Your task to perform on an android device: Open Google Image 0: 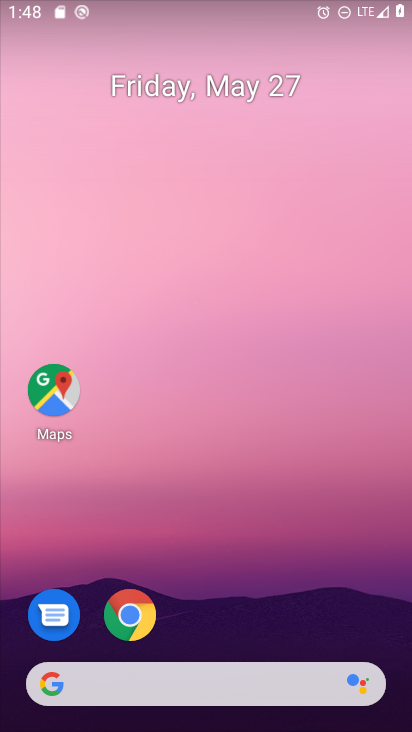
Step 0: drag from (204, 691) to (250, 23)
Your task to perform on an android device: Open Google Image 1: 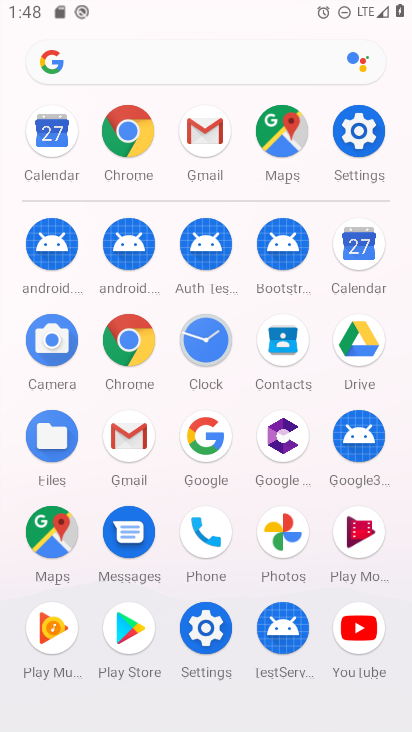
Step 1: click (125, 335)
Your task to perform on an android device: Open Google Image 2: 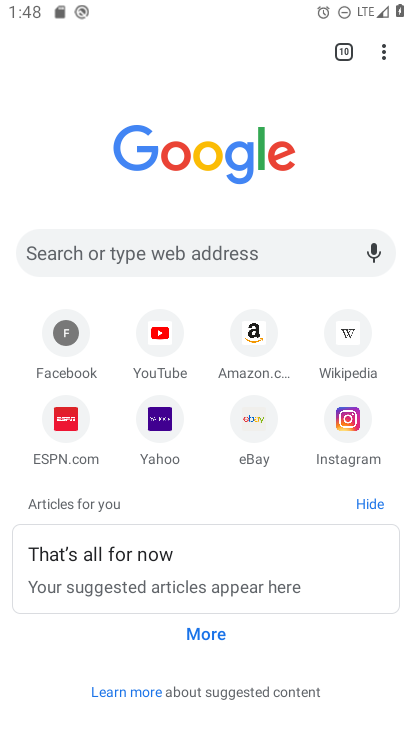
Step 2: task complete